Your task to perform on an android device: change alarm snooze length Image 0: 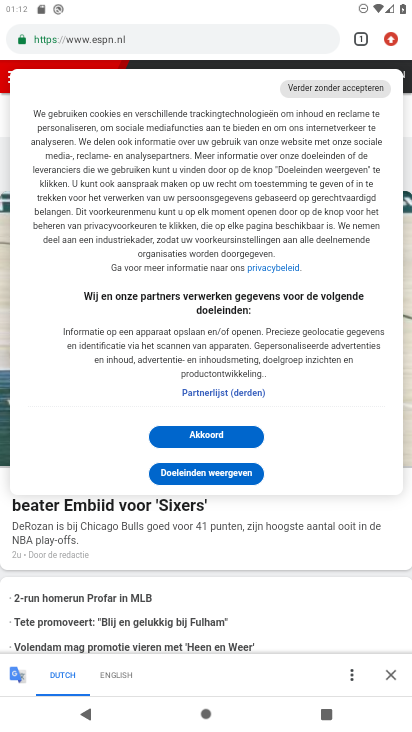
Step 0: press home button
Your task to perform on an android device: change alarm snooze length Image 1: 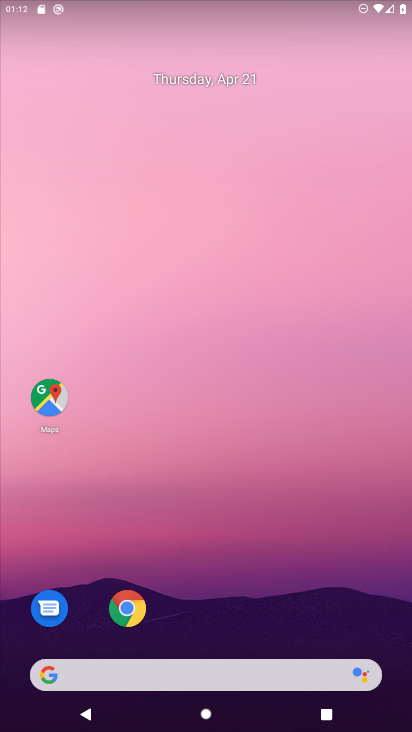
Step 1: drag from (196, 580) to (240, 266)
Your task to perform on an android device: change alarm snooze length Image 2: 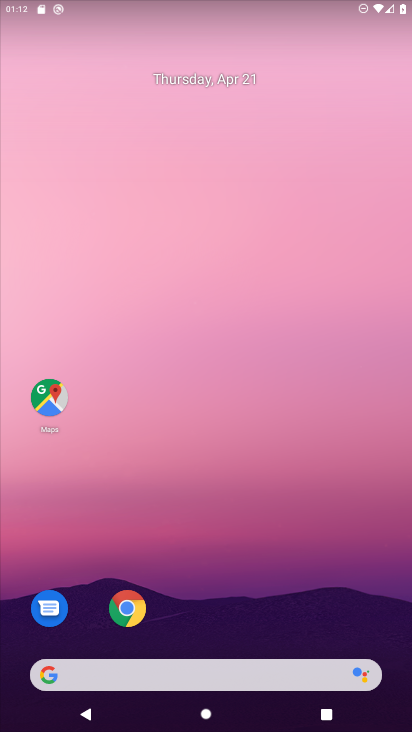
Step 2: drag from (227, 635) to (224, 76)
Your task to perform on an android device: change alarm snooze length Image 3: 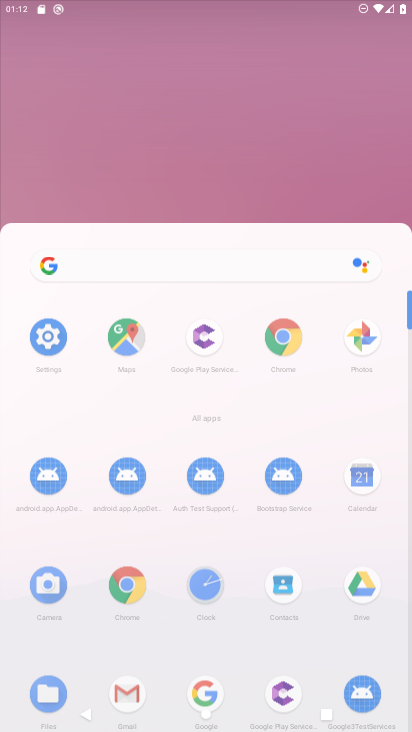
Step 3: drag from (213, 380) to (235, 170)
Your task to perform on an android device: change alarm snooze length Image 4: 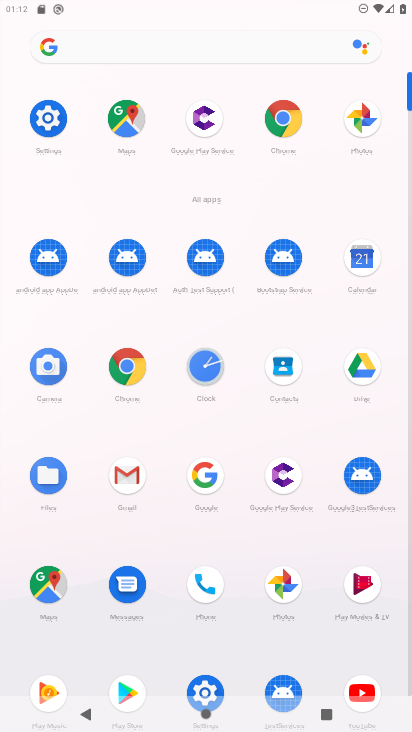
Step 4: drag from (240, 523) to (232, 279)
Your task to perform on an android device: change alarm snooze length Image 5: 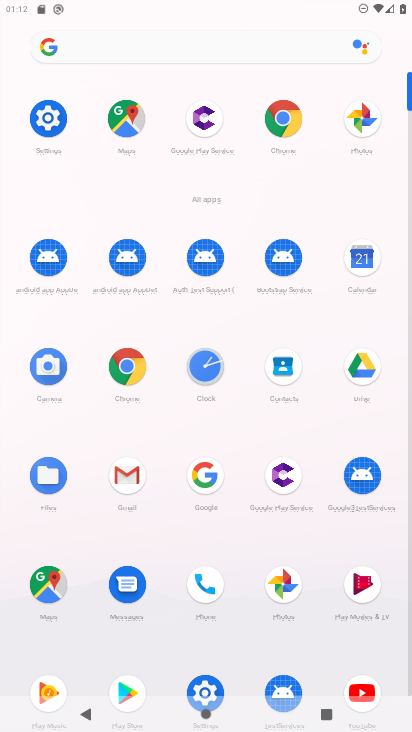
Step 5: click (197, 362)
Your task to perform on an android device: change alarm snooze length Image 6: 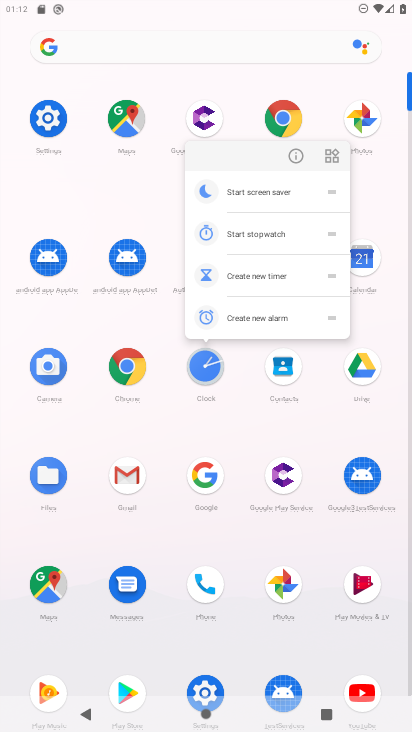
Step 6: click (207, 357)
Your task to perform on an android device: change alarm snooze length Image 7: 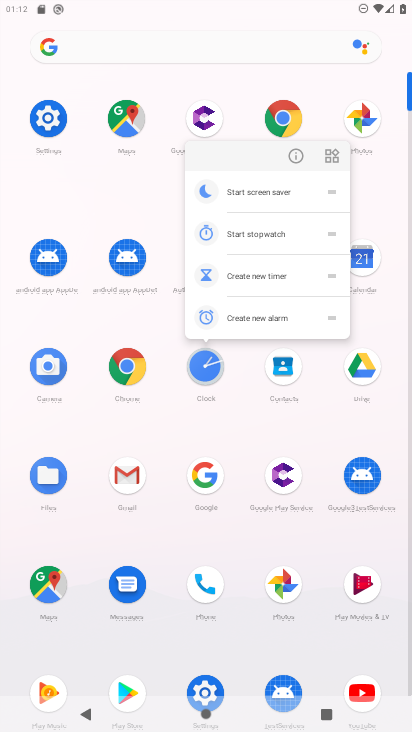
Step 7: click (207, 357)
Your task to perform on an android device: change alarm snooze length Image 8: 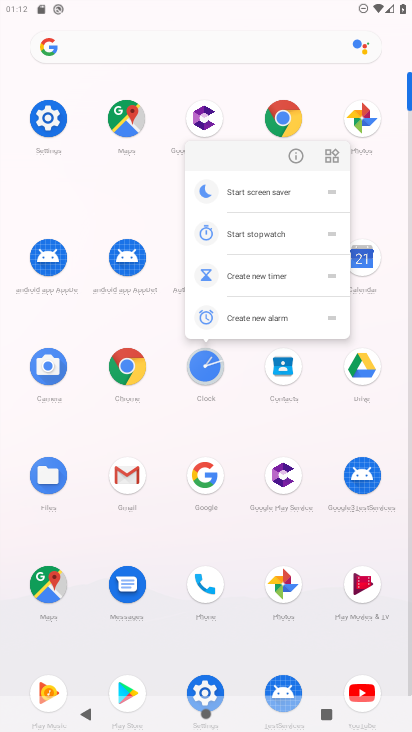
Step 8: click (202, 365)
Your task to perform on an android device: change alarm snooze length Image 9: 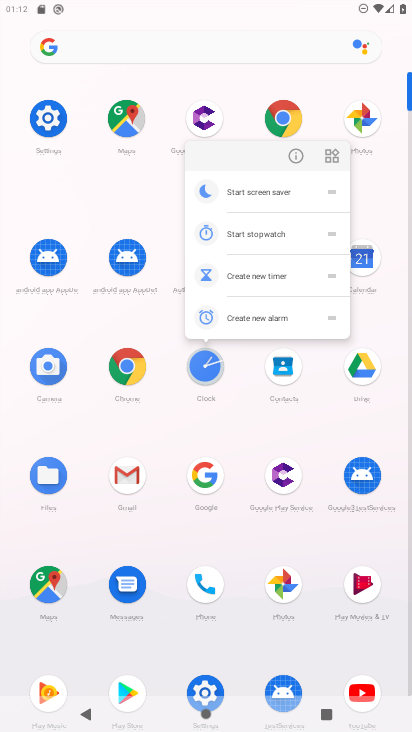
Step 9: click (202, 365)
Your task to perform on an android device: change alarm snooze length Image 10: 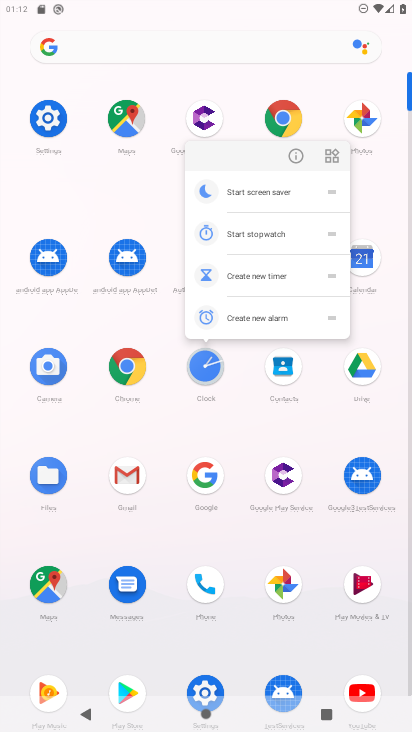
Step 10: click (202, 365)
Your task to perform on an android device: change alarm snooze length Image 11: 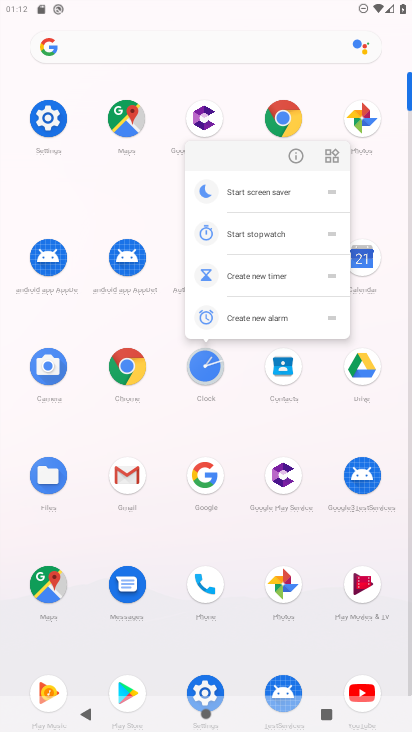
Step 11: click (202, 365)
Your task to perform on an android device: change alarm snooze length Image 12: 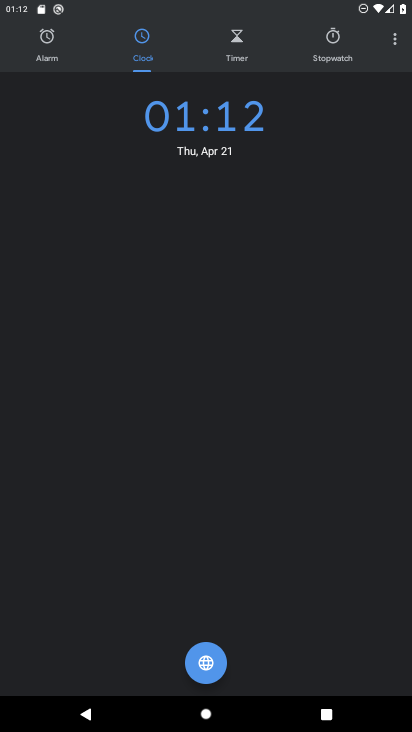
Step 12: click (202, 365)
Your task to perform on an android device: change alarm snooze length Image 13: 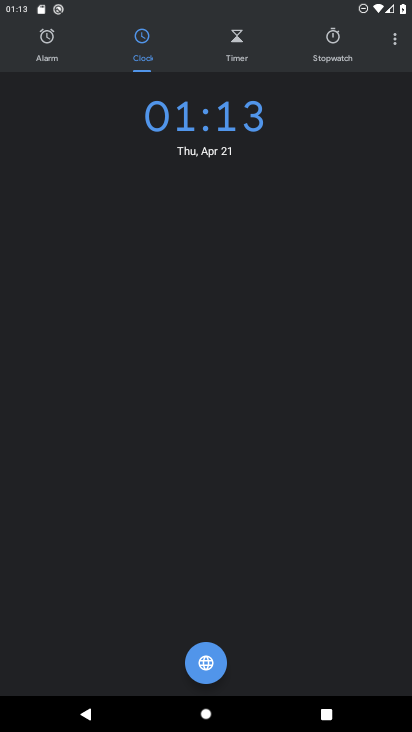
Step 13: click (388, 38)
Your task to perform on an android device: change alarm snooze length Image 14: 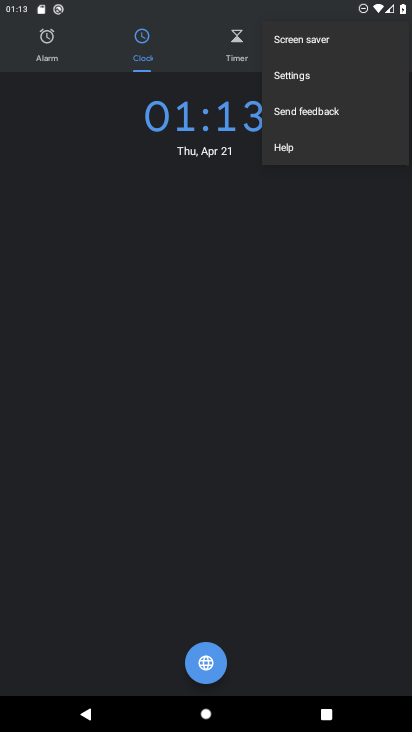
Step 14: click (325, 71)
Your task to perform on an android device: change alarm snooze length Image 15: 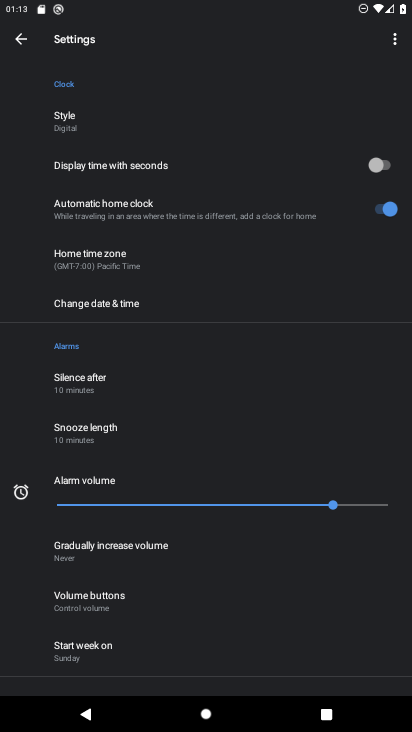
Step 15: click (139, 434)
Your task to perform on an android device: change alarm snooze length Image 16: 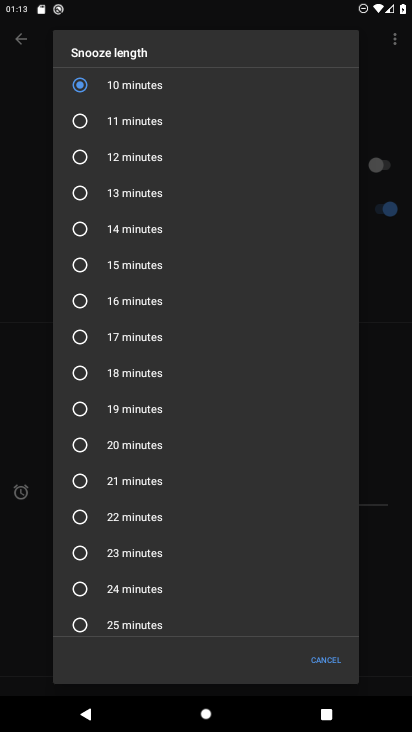
Step 16: click (129, 586)
Your task to perform on an android device: change alarm snooze length Image 17: 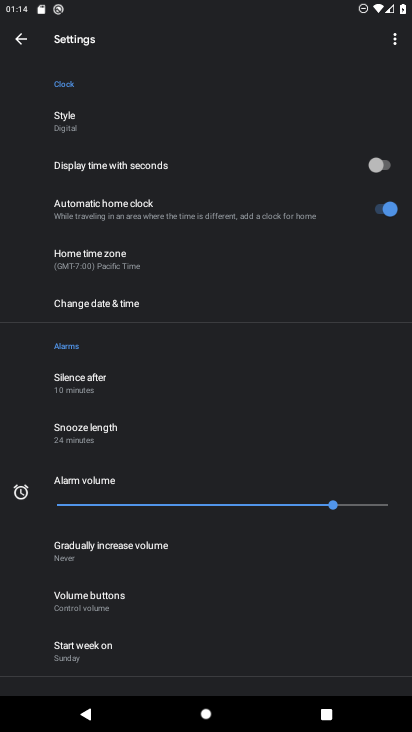
Step 17: click (96, 430)
Your task to perform on an android device: change alarm snooze length Image 18: 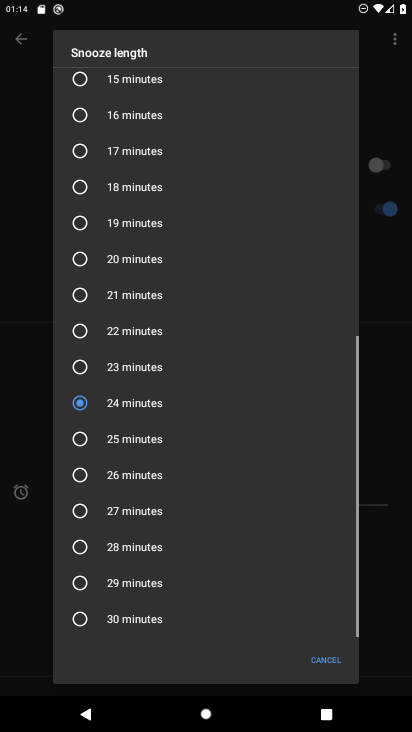
Step 18: click (128, 484)
Your task to perform on an android device: change alarm snooze length Image 19: 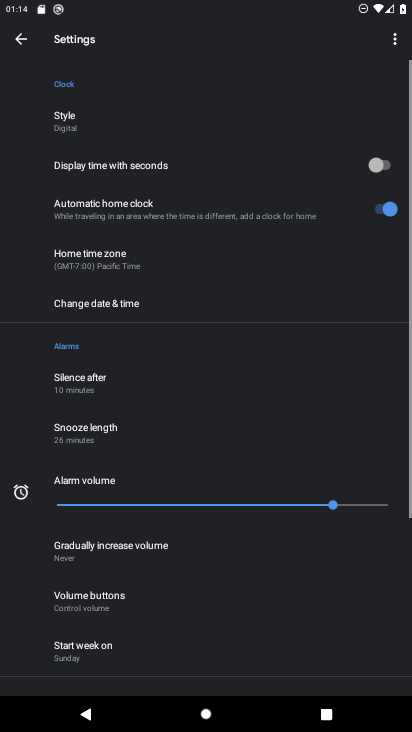
Step 19: task complete